Your task to perform on an android device: Open the web browser Image 0: 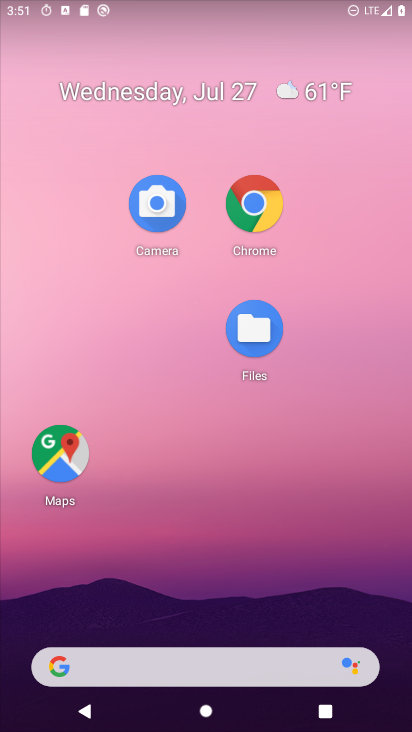
Step 0: click (249, 223)
Your task to perform on an android device: Open the web browser Image 1: 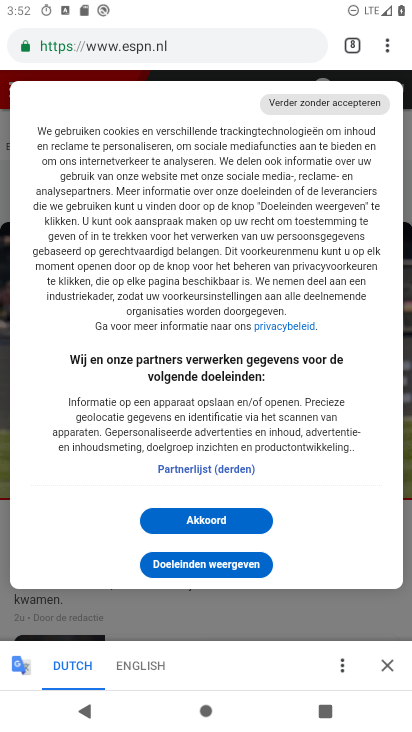
Step 1: task complete